Your task to perform on an android device: check google app version Image 0: 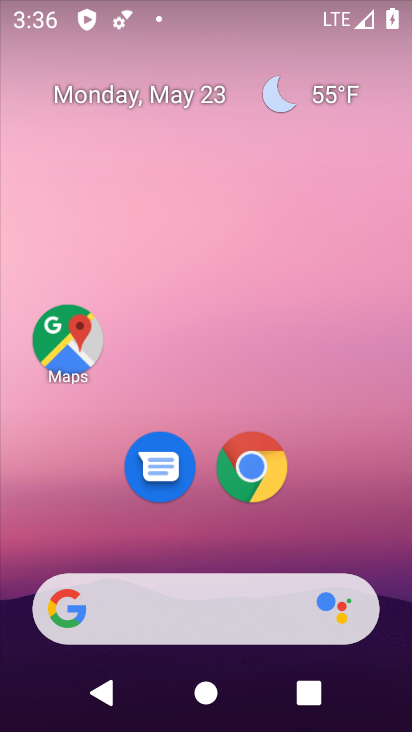
Step 0: drag from (196, 483) to (233, 104)
Your task to perform on an android device: check google app version Image 1: 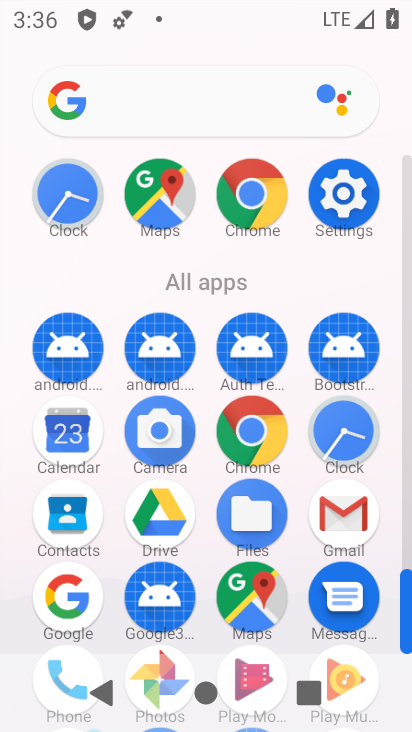
Step 1: click (72, 596)
Your task to perform on an android device: check google app version Image 2: 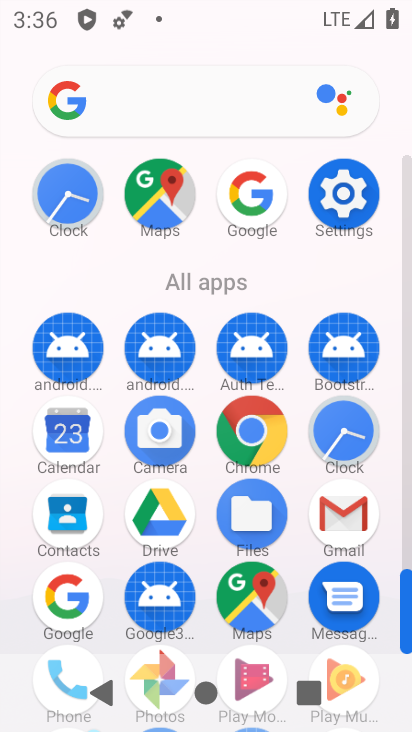
Step 2: click (77, 589)
Your task to perform on an android device: check google app version Image 3: 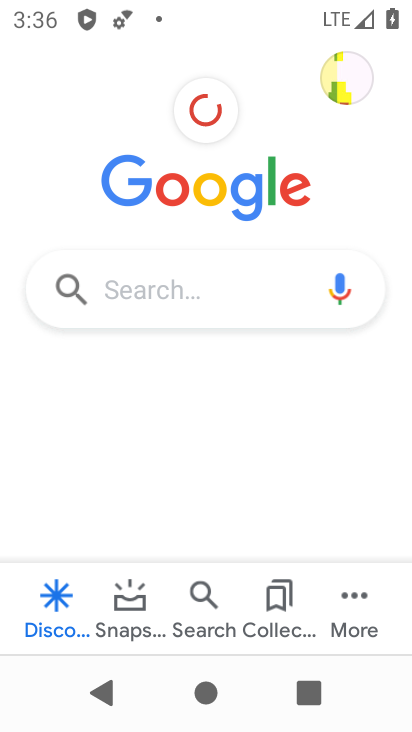
Step 3: click (352, 607)
Your task to perform on an android device: check google app version Image 4: 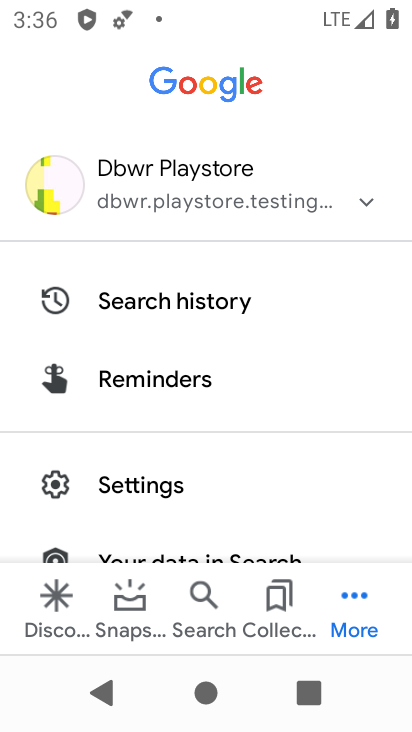
Step 4: click (123, 490)
Your task to perform on an android device: check google app version Image 5: 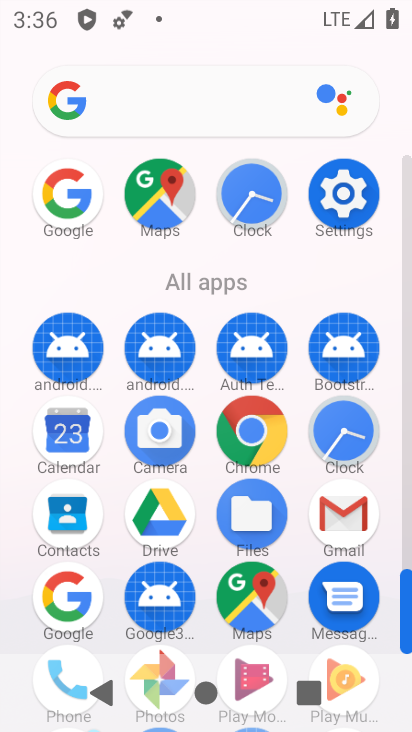
Step 5: click (69, 590)
Your task to perform on an android device: check google app version Image 6: 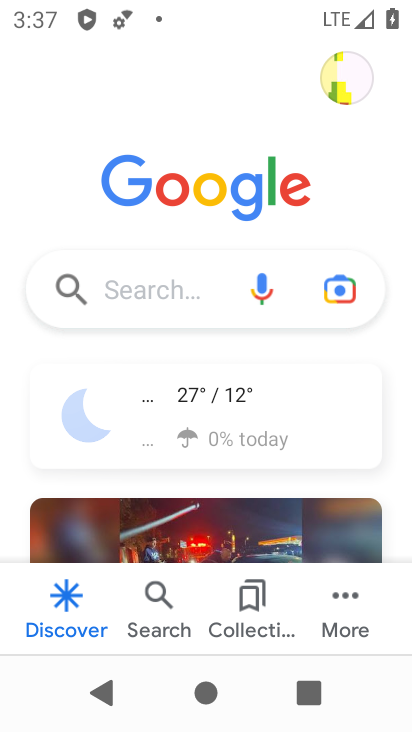
Step 6: click (342, 624)
Your task to perform on an android device: check google app version Image 7: 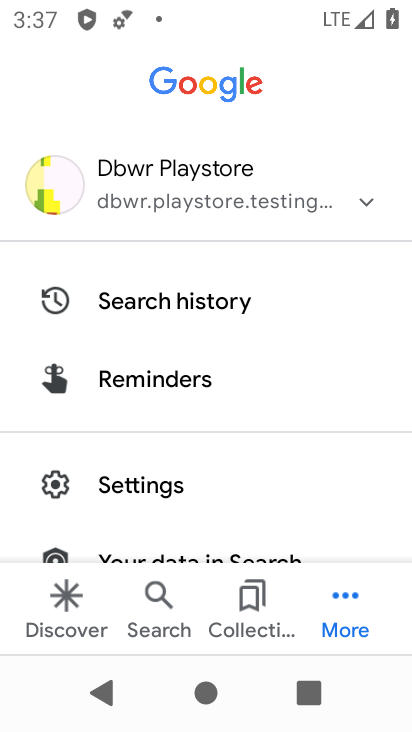
Step 7: click (158, 479)
Your task to perform on an android device: check google app version Image 8: 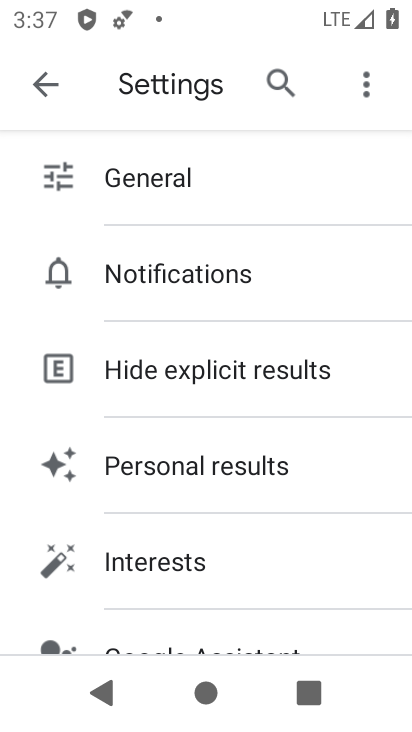
Step 8: drag from (231, 596) to (286, 171)
Your task to perform on an android device: check google app version Image 9: 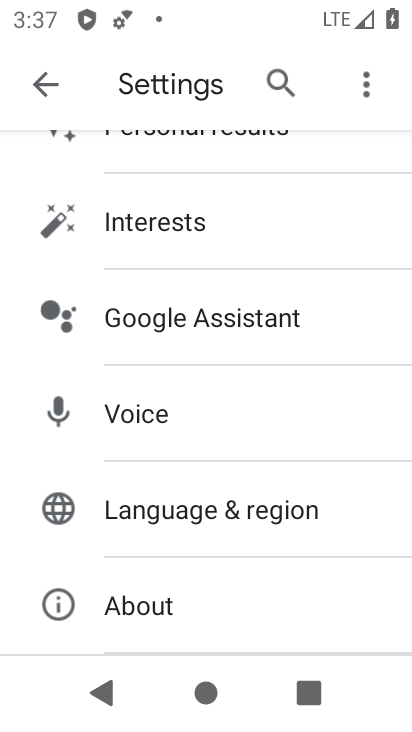
Step 9: click (164, 610)
Your task to perform on an android device: check google app version Image 10: 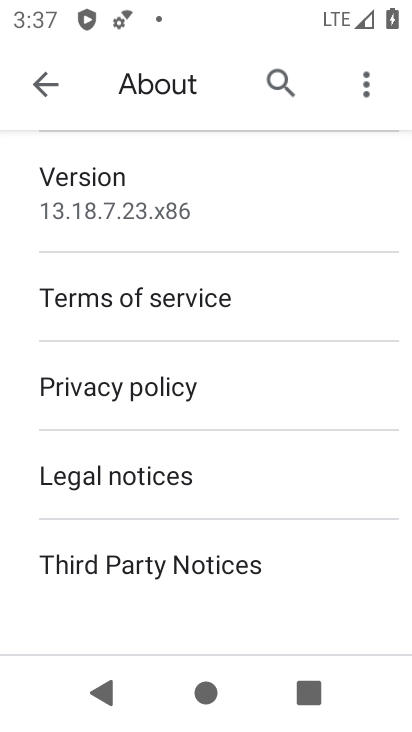
Step 10: click (172, 197)
Your task to perform on an android device: check google app version Image 11: 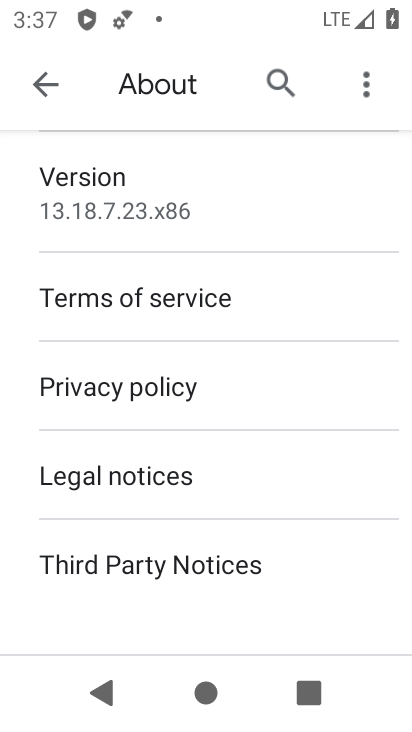
Step 11: task complete